Your task to perform on an android device: Search for a 24-inch cordless drill. Image 0: 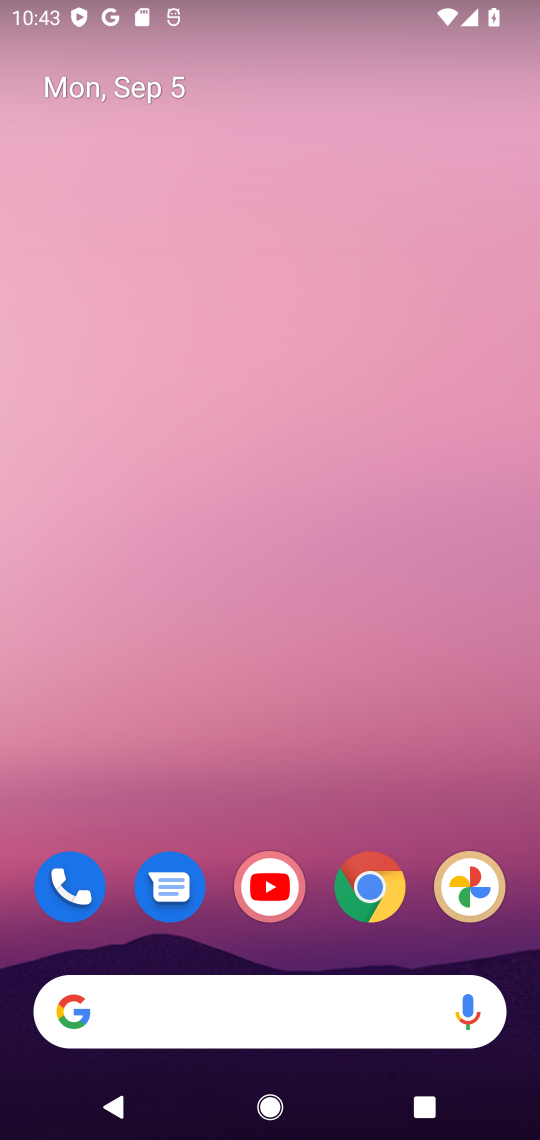
Step 0: click (371, 878)
Your task to perform on an android device: Search for a 24-inch cordless drill. Image 1: 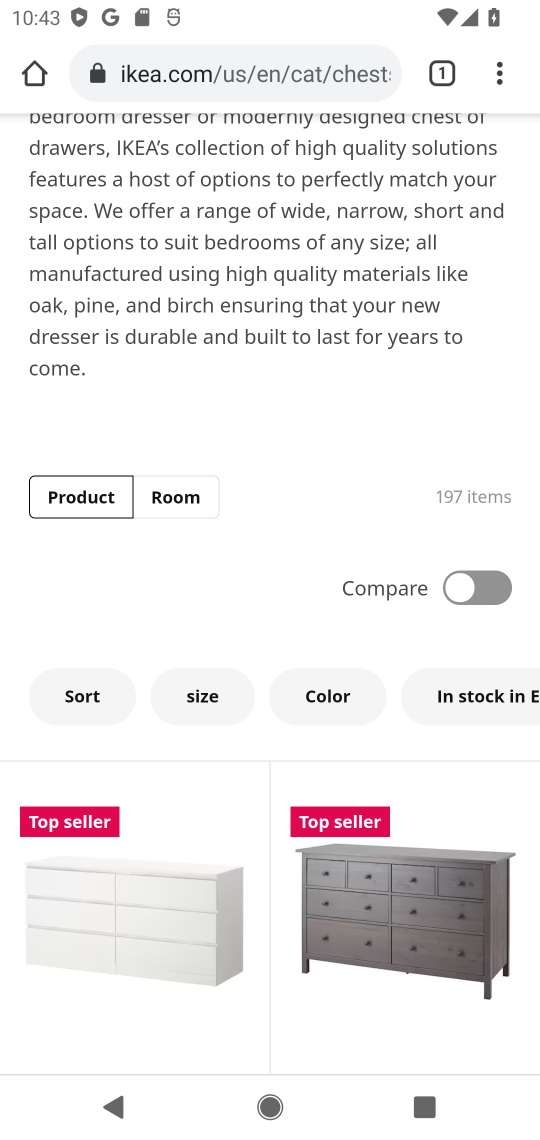
Step 1: click (259, 80)
Your task to perform on an android device: Search for a 24-inch cordless drill. Image 2: 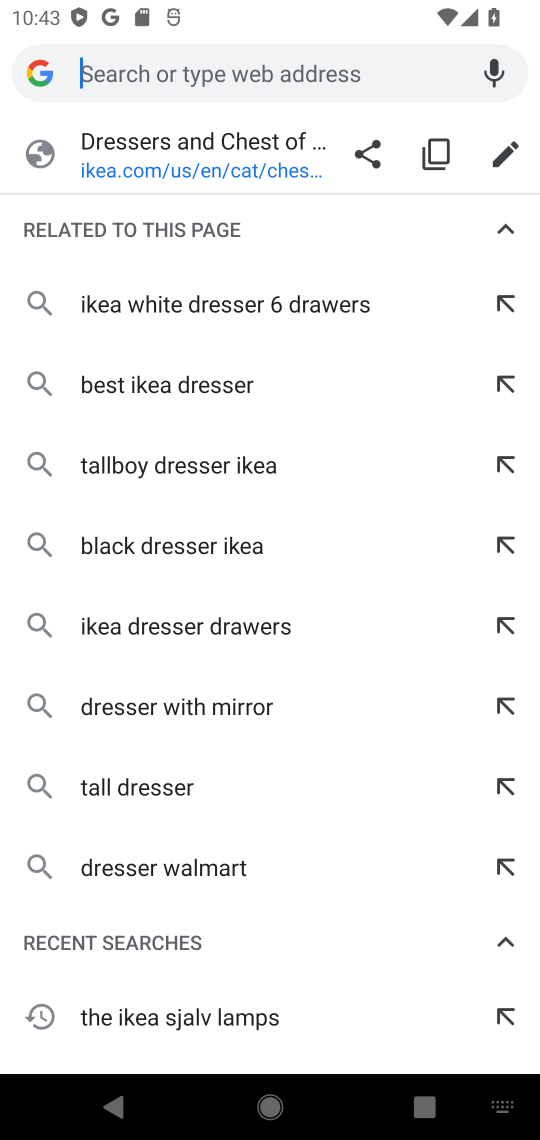
Step 2: type "24-inch cordless drill"
Your task to perform on an android device: Search for a 24-inch cordless drill. Image 3: 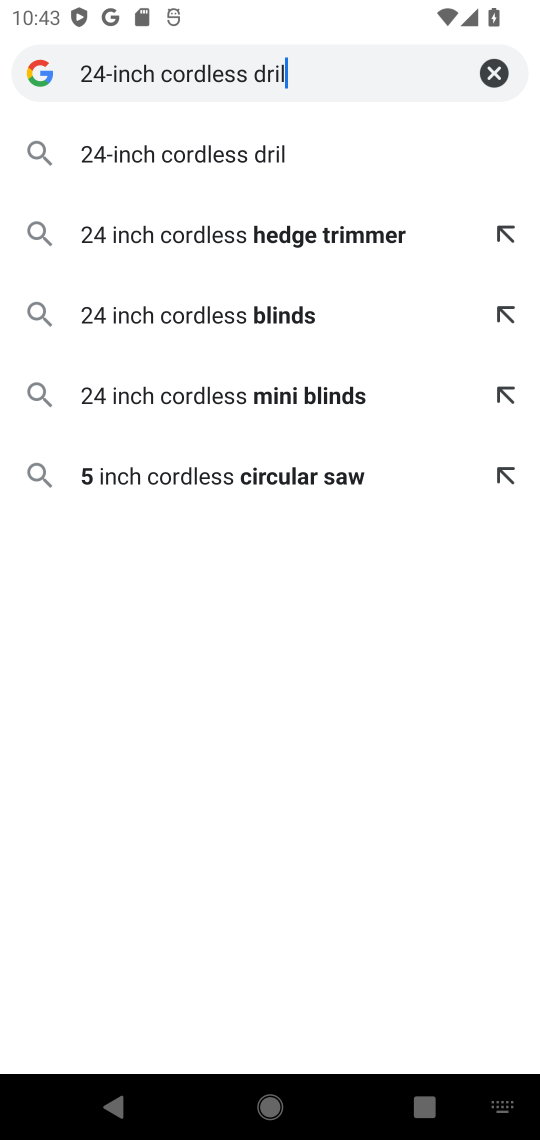
Step 3: press enter
Your task to perform on an android device: Search for a 24-inch cordless drill. Image 4: 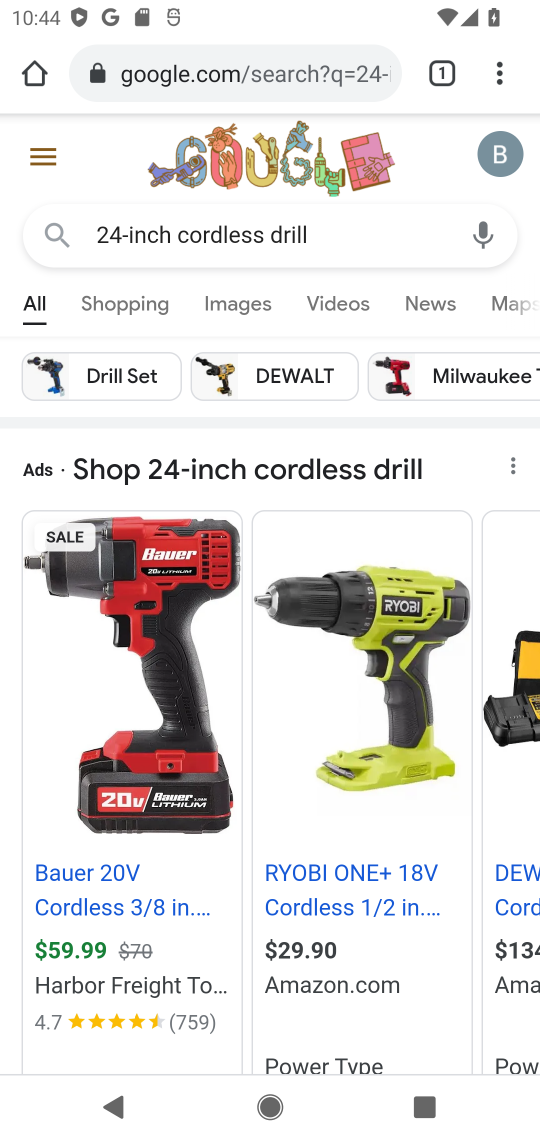
Step 4: drag from (450, 883) to (457, 448)
Your task to perform on an android device: Search for a 24-inch cordless drill. Image 5: 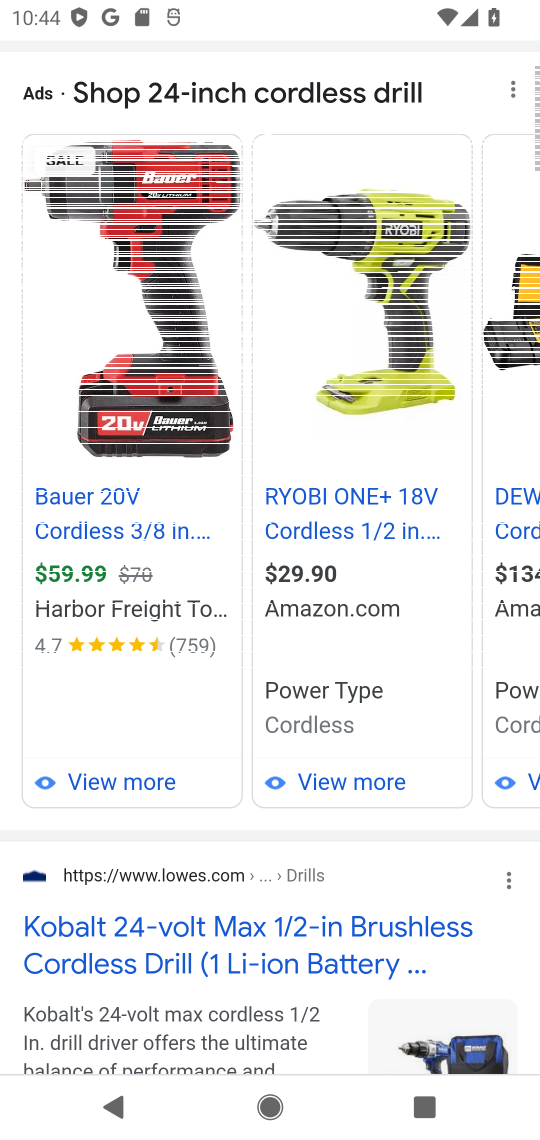
Step 5: drag from (444, 603) to (452, 274)
Your task to perform on an android device: Search for a 24-inch cordless drill. Image 6: 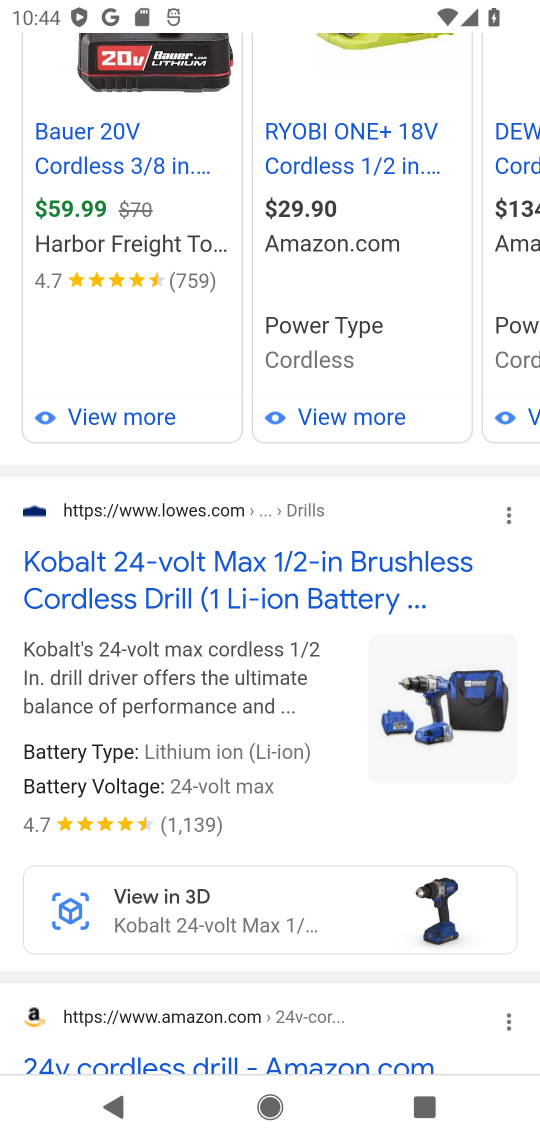
Step 6: drag from (375, 797) to (404, 462)
Your task to perform on an android device: Search for a 24-inch cordless drill. Image 7: 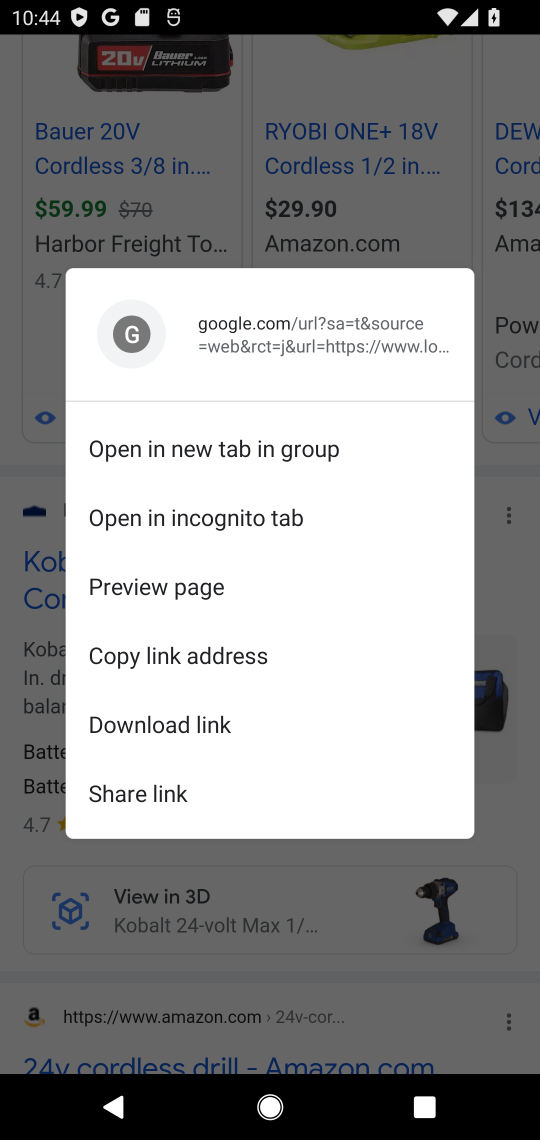
Step 7: drag from (278, 808) to (432, 420)
Your task to perform on an android device: Search for a 24-inch cordless drill. Image 8: 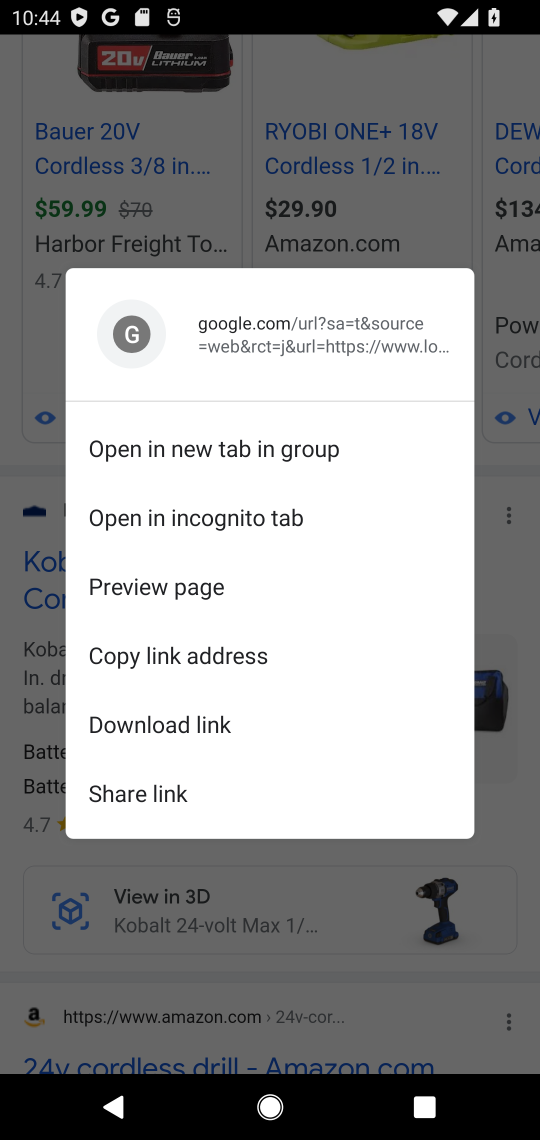
Step 8: click (402, 951)
Your task to perform on an android device: Search for a 24-inch cordless drill. Image 9: 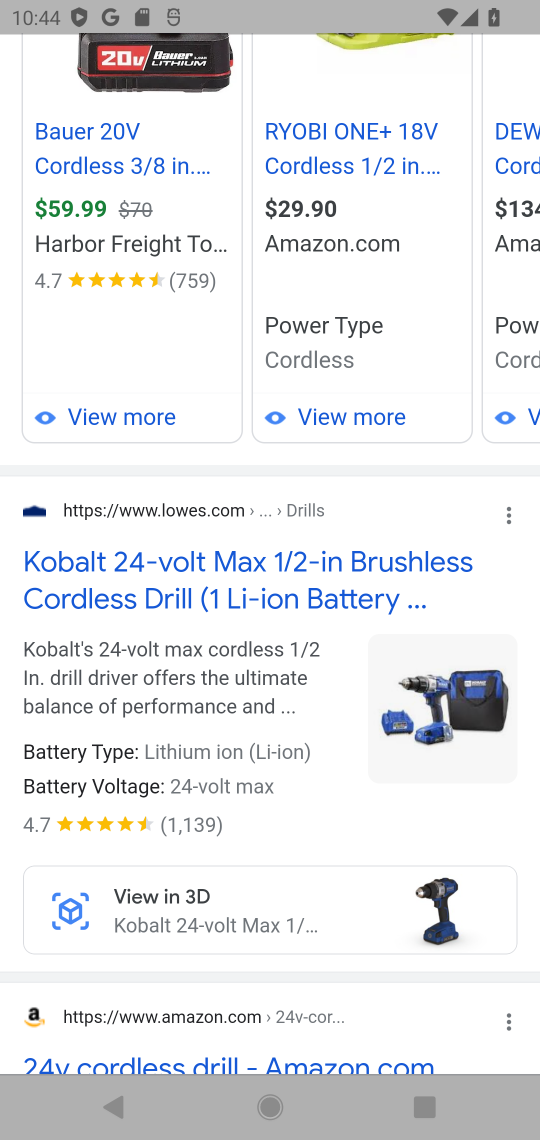
Step 9: task complete